Your task to perform on an android device: turn notification dots on Image 0: 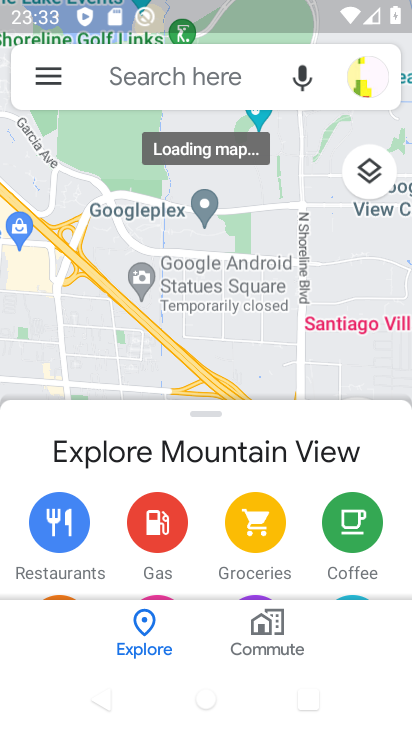
Step 0: press home button
Your task to perform on an android device: turn notification dots on Image 1: 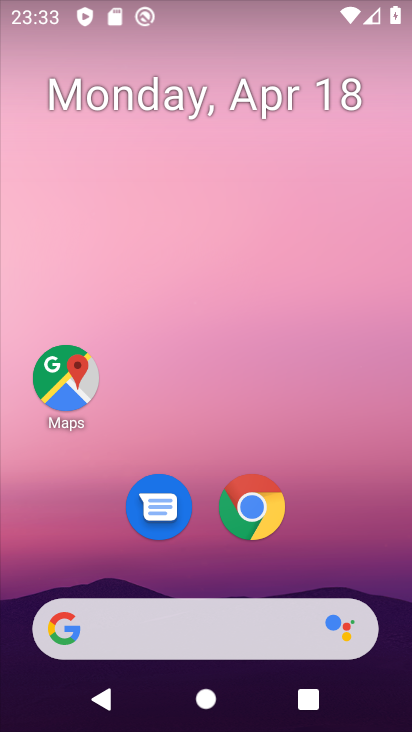
Step 1: drag from (340, 510) to (366, 65)
Your task to perform on an android device: turn notification dots on Image 2: 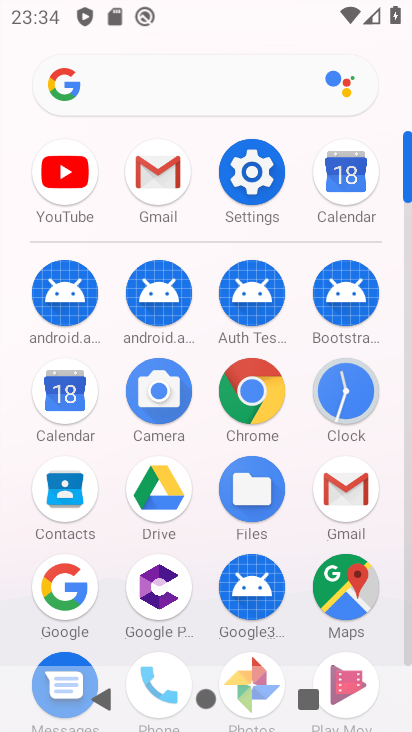
Step 2: click (258, 172)
Your task to perform on an android device: turn notification dots on Image 3: 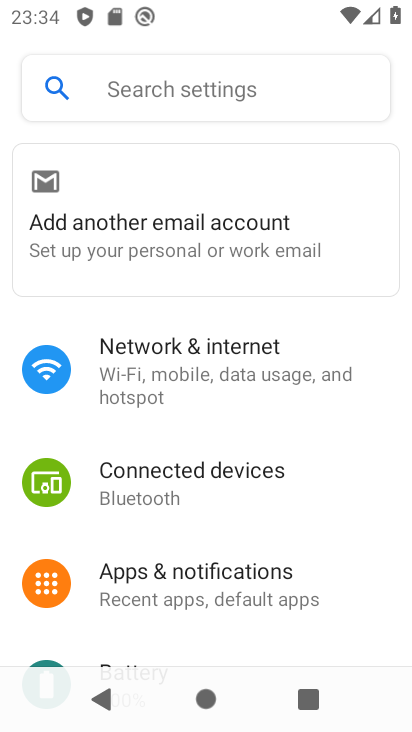
Step 3: click (211, 566)
Your task to perform on an android device: turn notification dots on Image 4: 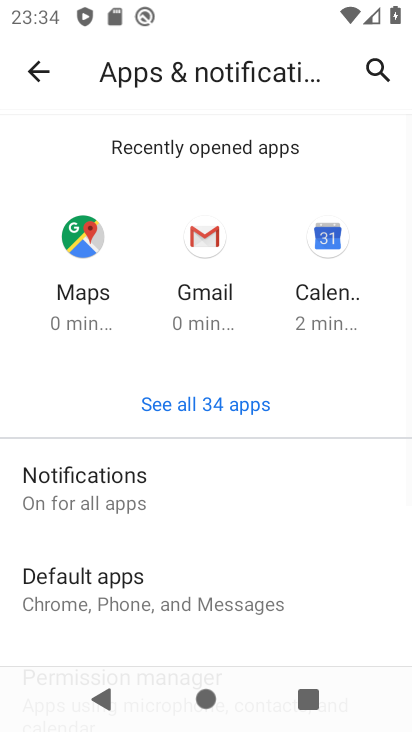
Step 4: click (124, 496)
Your task to perform on an android device: turn notification dots on Image 5: 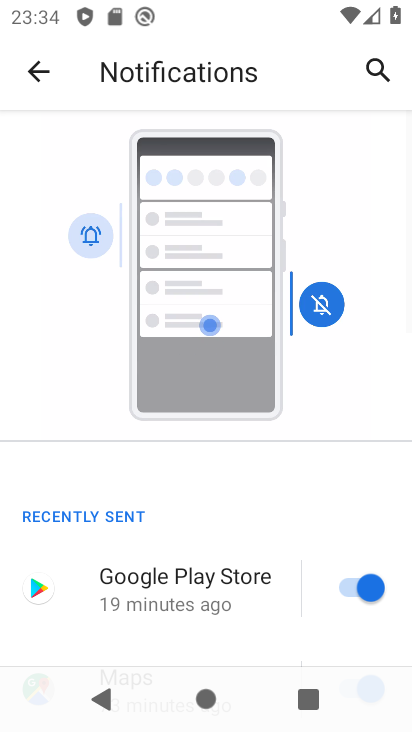
Step 5: drag from (274, 508) to (342, 126)
Your task to perform on an android device: turn notification dots on Image 6: 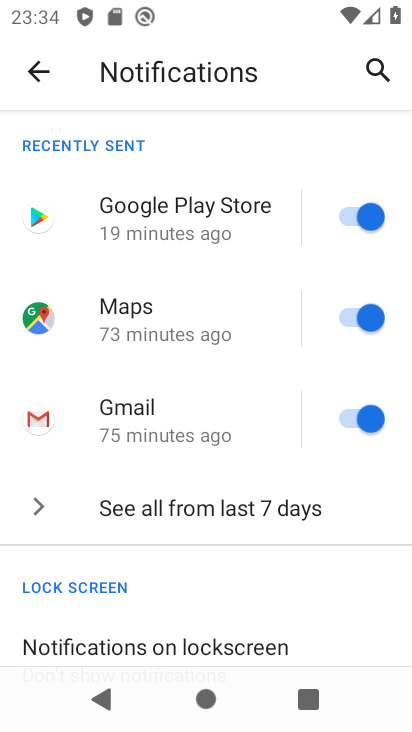
Step 6: drag from (229, 496) to (266, 153)
Your task to perform on an android device: turn notification dots on Image 7: 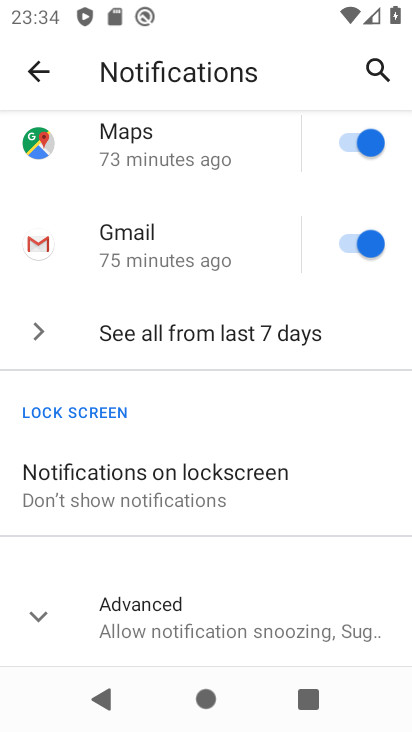
Step 7: click (35, 611)
Your task to perform on an android device: turn notification dots on Image 8: 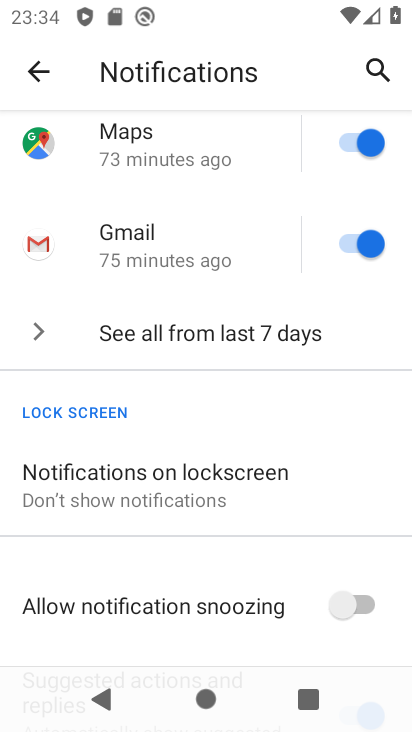
Step 8: task complete